Your task to perform on an android device: Search for seafood restaurants on Google Maps Image 0: 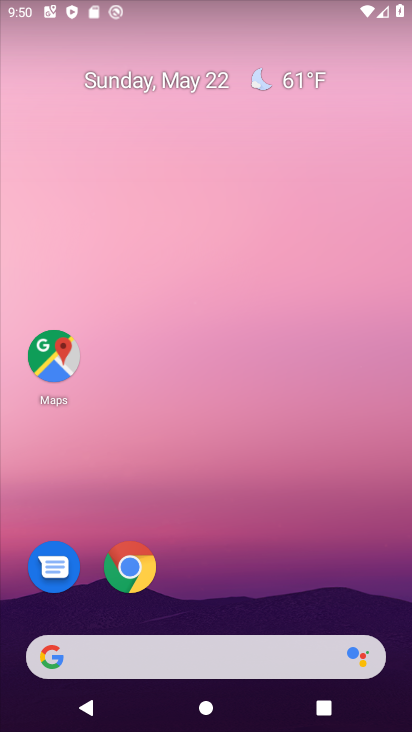
Step 0: click (55, 351)
Your task to perform on an android device: Search for seafood restaurants on Google Maps Image 1: 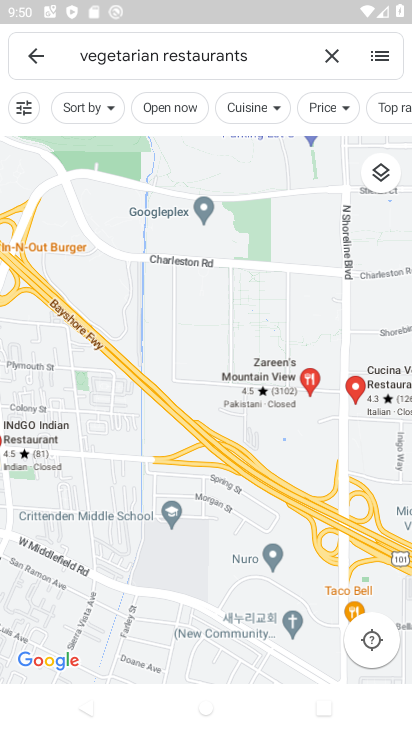
Step 1: click (328, 56)
Your task to perform on an android device: Search for seafood restaurants on Google Maps Image 2: 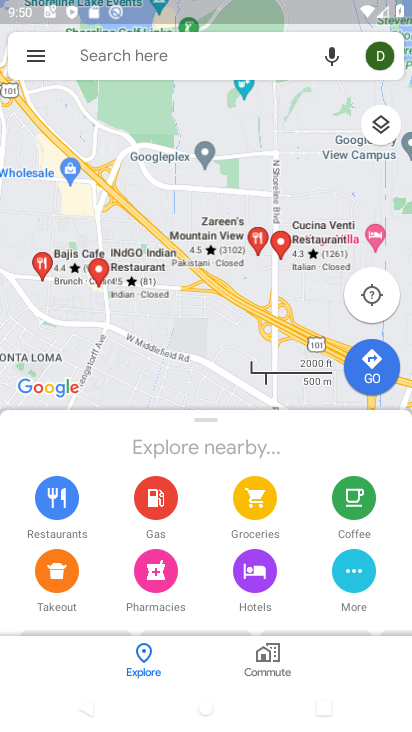
Step 2: click (150, 49)
Your task to perform on an android device: Search for seafood restaurants on Google Maps Image 3: 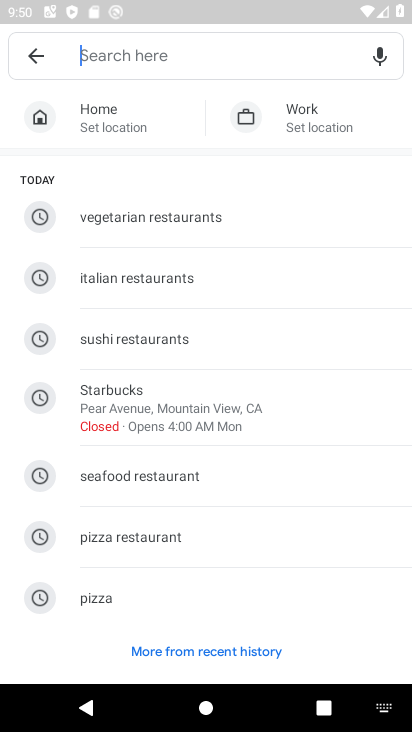
Step 3: click (137, 484)
Your task to perform on an android device: Search for seafood restaurants on Google Maps Image 4: 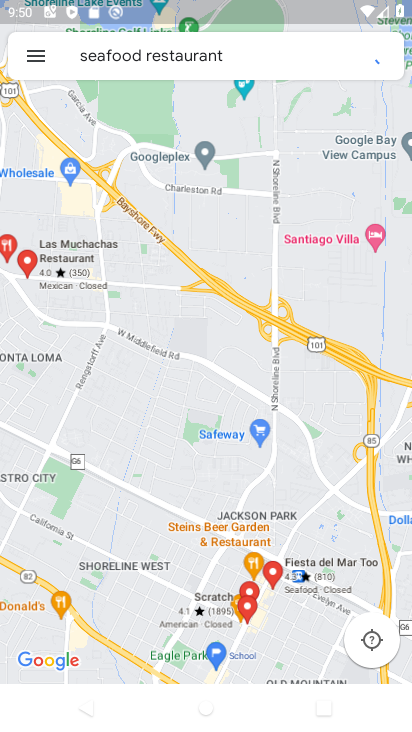
Step 4: task complete